Your task to perform on an android device: turn on javascript in the chrome app Image 0: 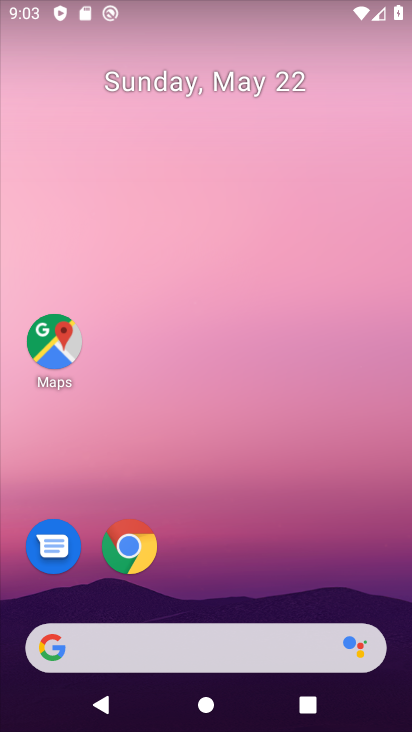
Step 0: click (267, 64)
Your task to perform on an android device: turn on javascript in the chrome app Image 1: 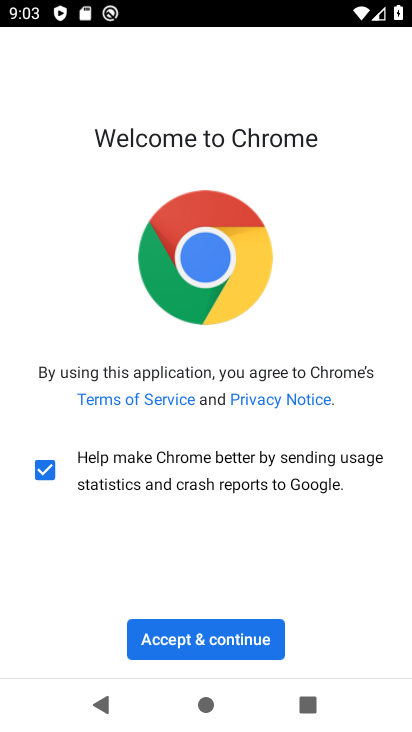
Step 1: press home button
Your task to perform on an android device: turn on javascript in the chrome app Image 2: 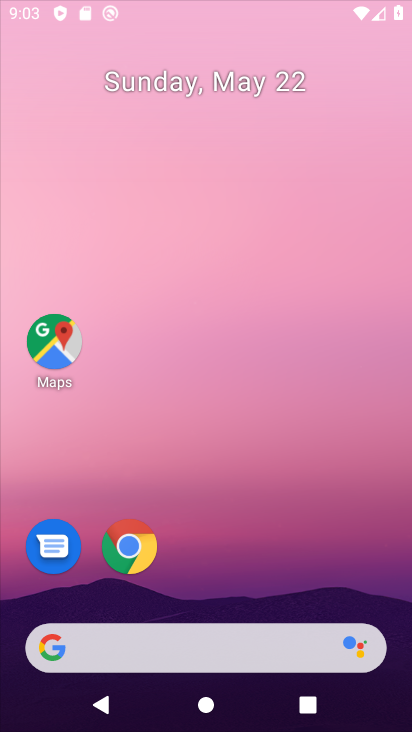
Step 2: click (324, 39)
Your task to perform on an android device: turn on javascript in the chrome app Image 3: 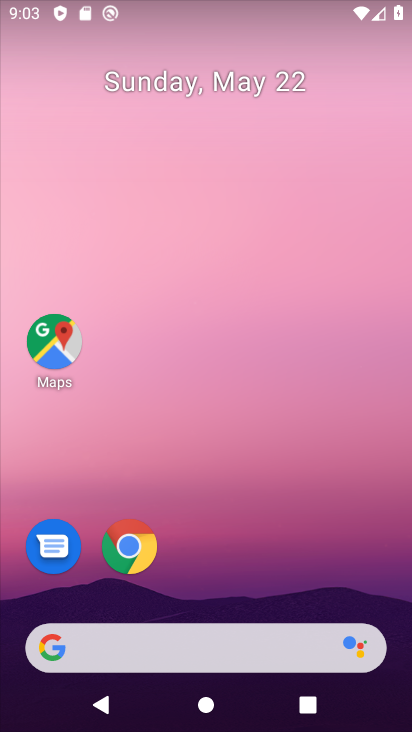
Step 3: drag from (212, 603) to (278, 222)
Your task to perform on an android device: turn on javascript in the chrome app Image 4: 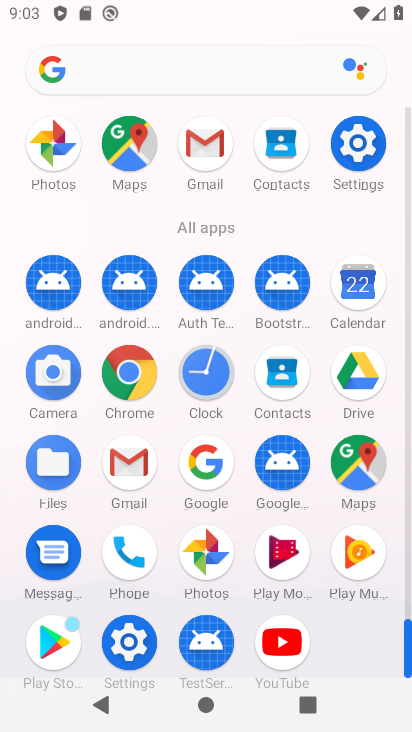
Step 4: click (123, 372)
Your task to perform on an android device: turn on javascript in the chrome app Image 5: 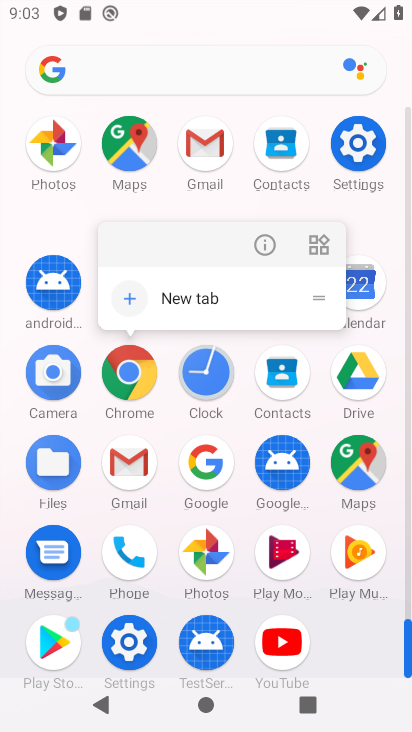
Step 5: click (260, 250)
Your task to perform on an android device: turn on javascript in the chrome app Image 6: 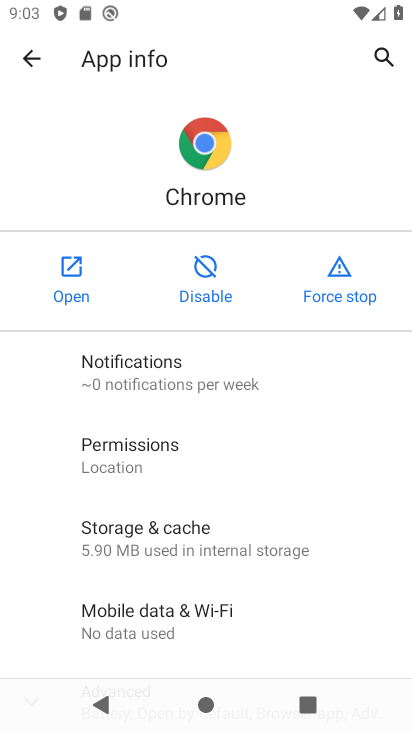
Step 6: click (75, 291)
Your task to perform on an android device: turn on javascript in the chrome app Image 7: 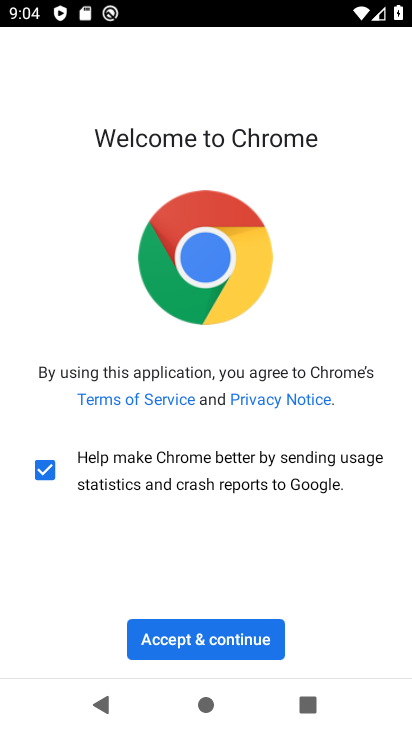
Step 7: click (239, 637)
Your task to perform on an android device: turn on javascript in the chrome app Image 8: 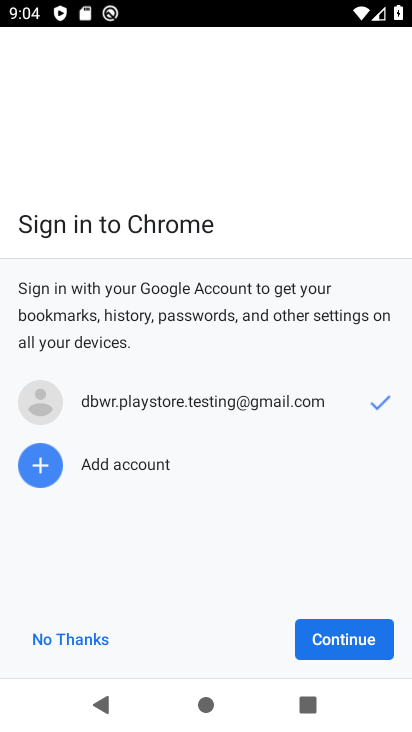
Step 8: click (319, 629)
Your task to perform on an android device: turn on javascript in the chrome app Image 9: 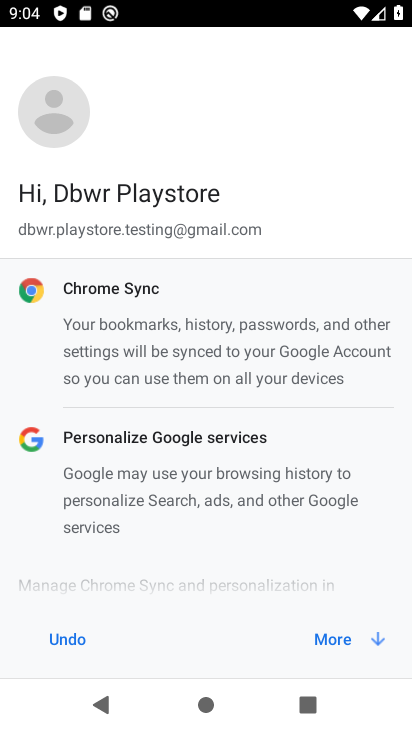
Step 9: click (350, 649)
Your task to perform on an android device: turn on javascript in the chrome app Image 10: 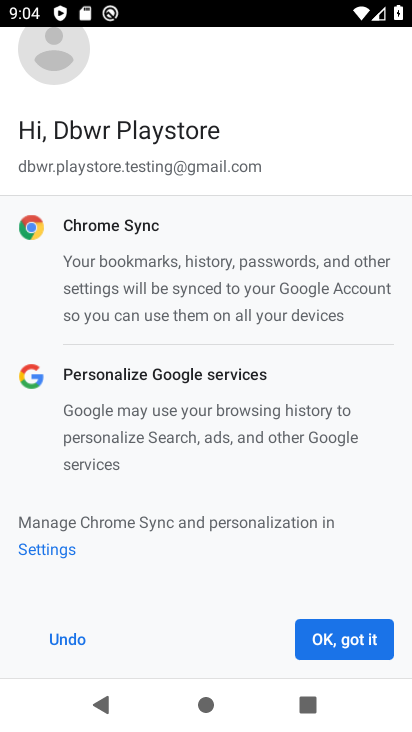
Step 10: click (367, 625)
Your task to perform on an android device: turn on javascript in the chrome app Image 11: 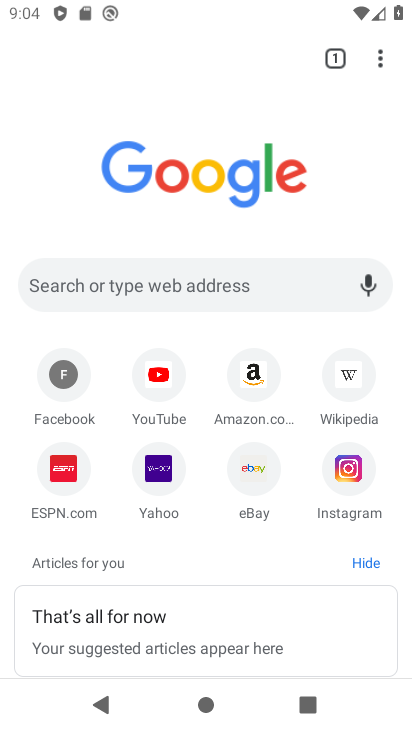
Step 11: click (379, 60)
Your task to perform on an android device: turn on javascript in the chrome app Image 12: 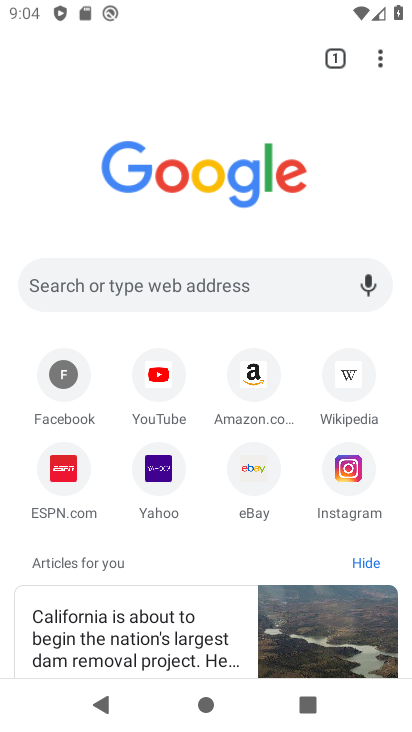
Step 12: click (383, 52)
Your task to perform on an android device: turn on javascript in the chrome app Image 13: 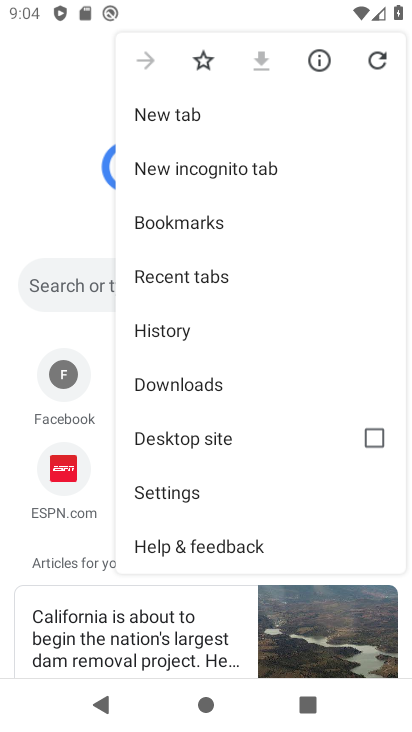
Step 13: click (237, 484)
Your task to perform on an android device: turn on javascript in the chrome app Image 14: 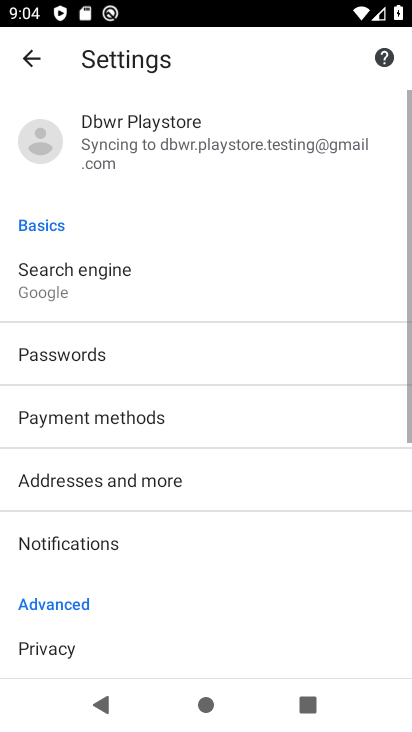
Step 14: drag from (251, 480) to (306, 161)
Your task to perform on an android device: turn on javascript in the chrome app Image 15: 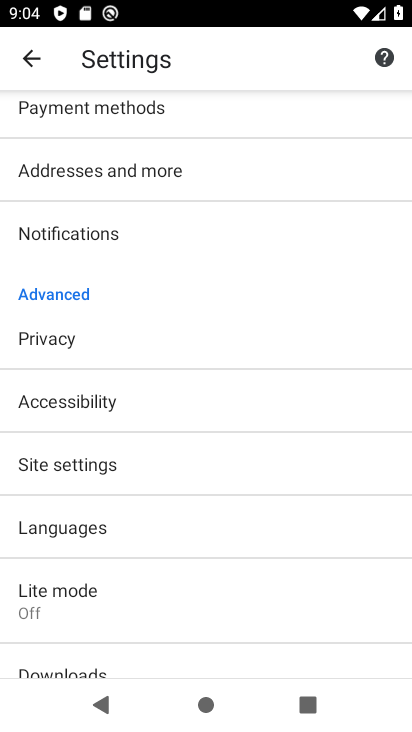
Step 15: click (99, 472)
Your task to perform on an android device: turn on javascript in the chrome app Image 16: 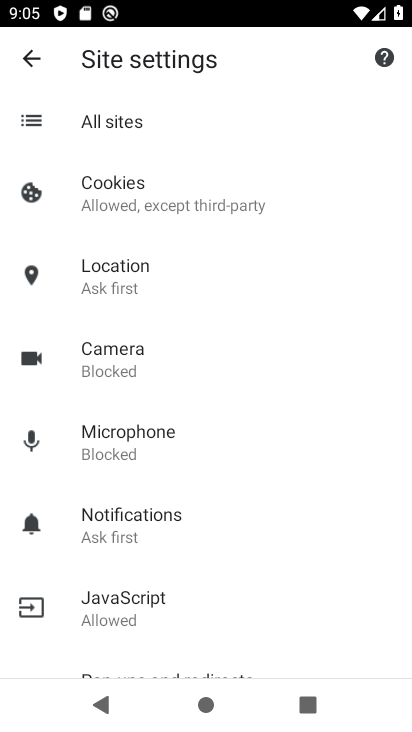
Step 16: click (139, 609)
Your task to perform on an android device: turn on javascript in the chrome app Image 17: 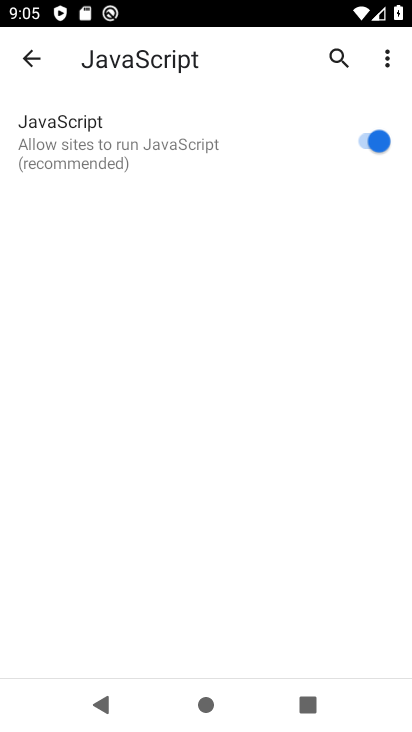
Step 17: task complete